Your task to perform on an android device: empty trash in the gmail app Image 0: 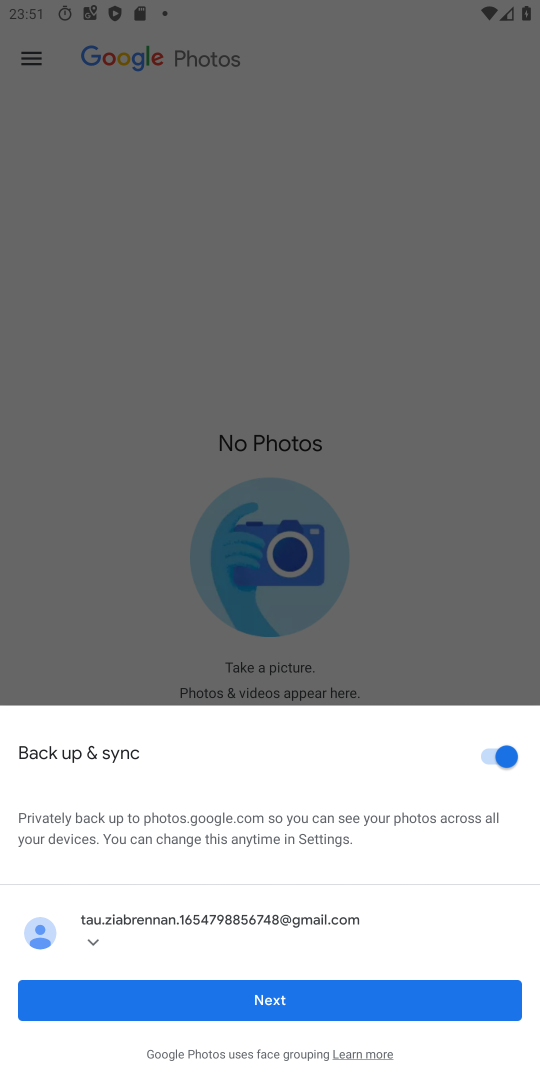
Step 0: press home button
Your task to perform on an android device: empty trash in the gmail app Image 1: 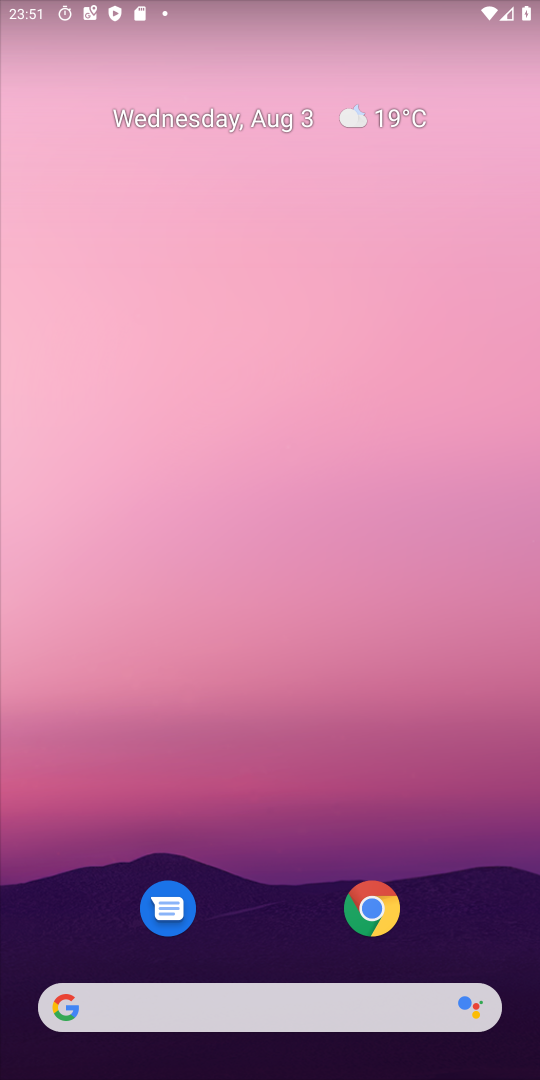
Step 1: drag from (358, 1002) to (269, 277)
Your task to perform on an android device: empty trash in the gmail app Image 2: 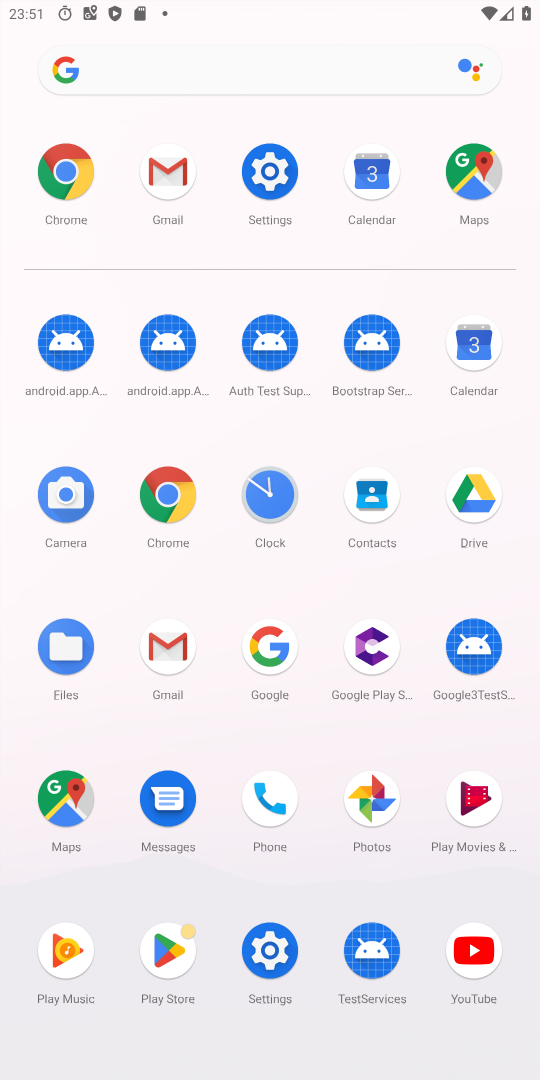
Step 2: click (171, 169)
Your task to perform on an android device: empty trash in the gmail app Image 3: 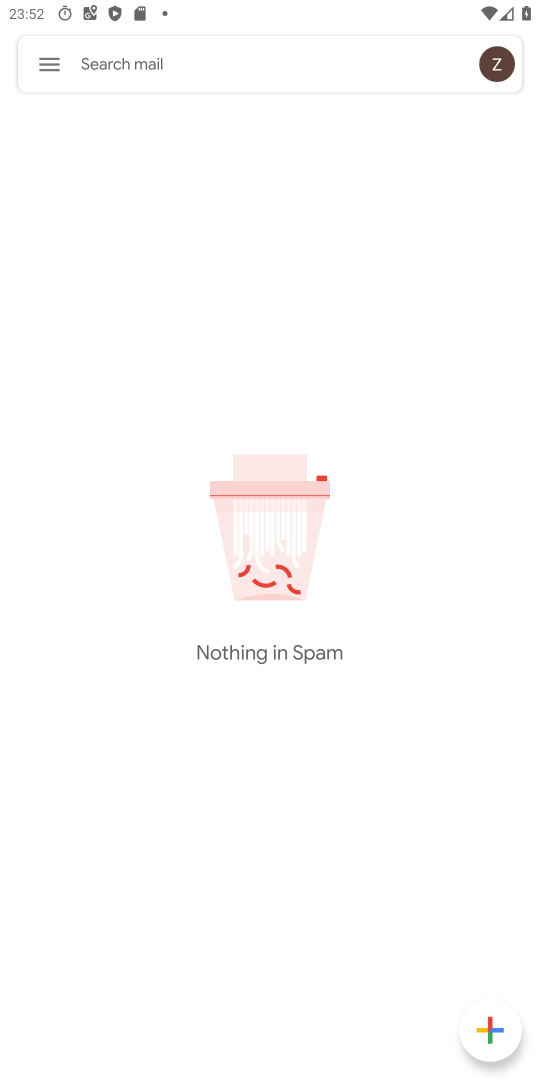
Step 3: click (29, 83)
Your task to perform on an android device: empty trash in the gmail app Image 4: 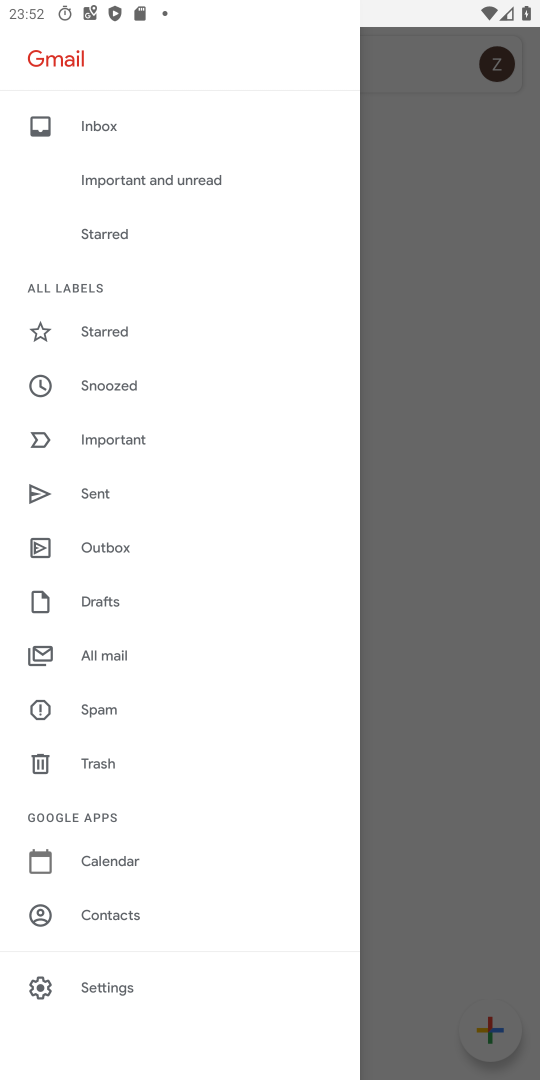
Step 4: click (110, 763)
Your task to perform on an android device: empty trash in the gmail app Image 5: 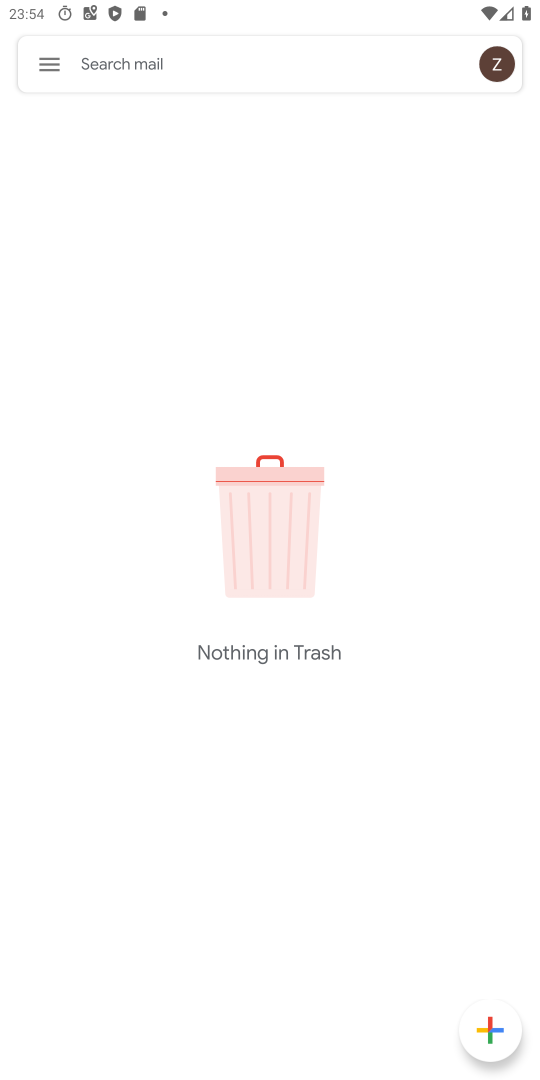
Step 5: task complete